Your task to perform on an android device: stop showing notifications on the lock screen Image 0: 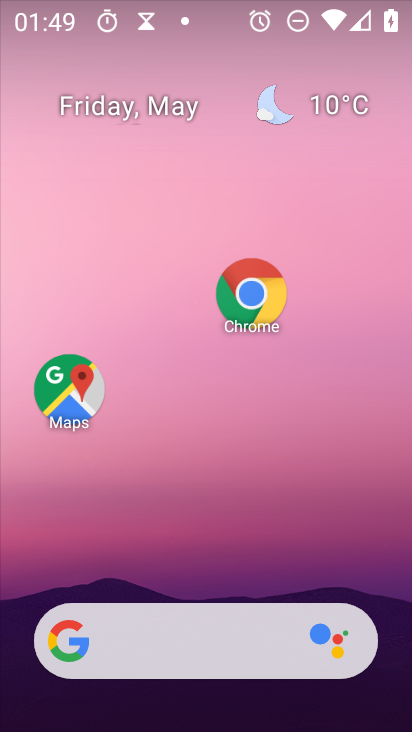
Step 0: press home button
Your task to perform on an android device: stop showing notifications on the lock screen Image 1: 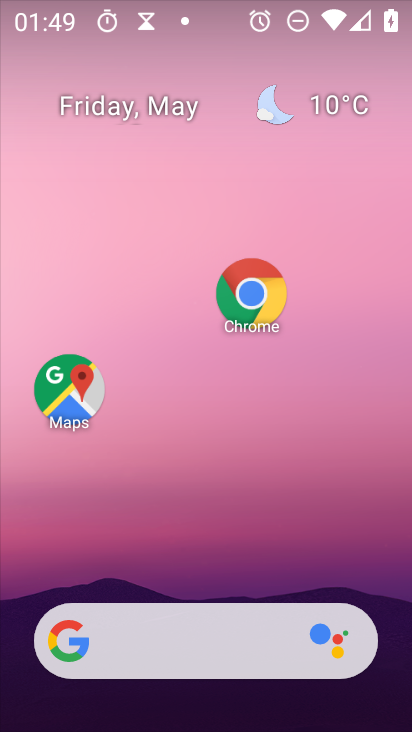
Step 1: drag from (176, 666) to (325, 78)
Your task to perform on an android device: stop showing notifications on the lock screen Image 2: 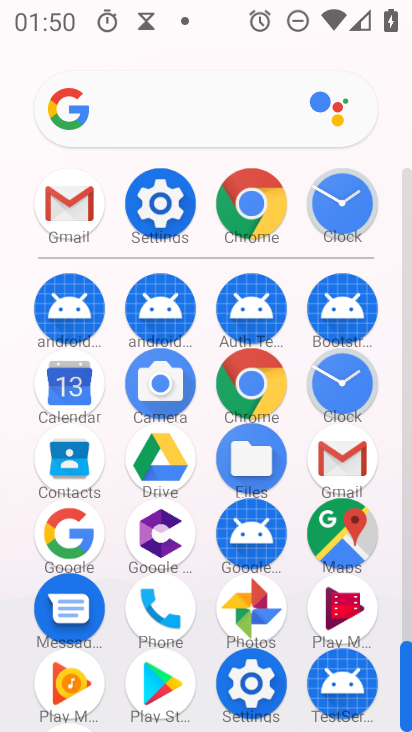
Step 2: click (167, 202)
Your task to perform on an android device: stop showing notifications on the lock screen Image 3: 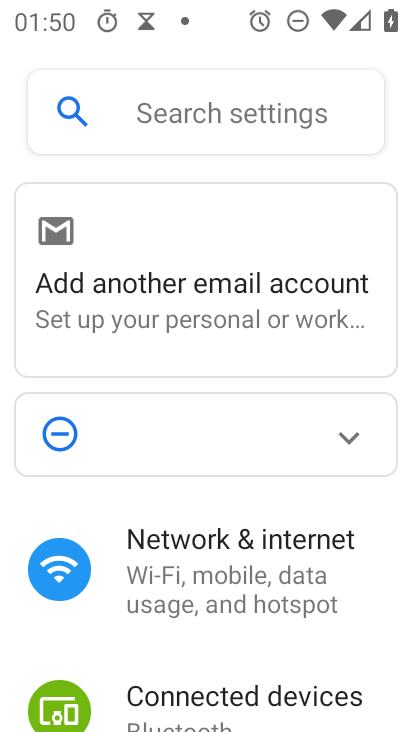
Step 3: drag from (230, 643) to (329, 238)
Your task to perform on an android device: stop showing notifications on the lock screen Image 4: 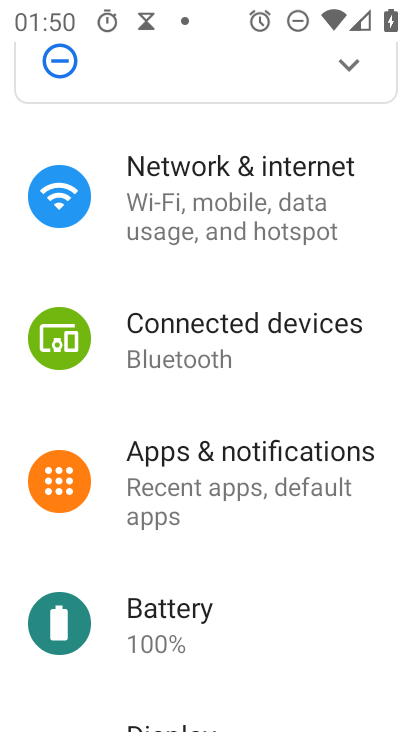
Step 4: click (277, 445)
Your task to perform on an android device: stop showing notifications on the lock screen Image 5: 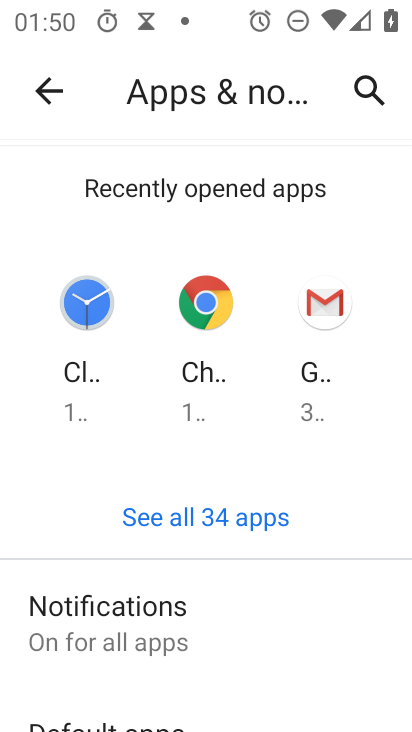
Step 5: click (144, 610)
Your task to perform on an android device: stop showing notifications on the lock screen Image 6: 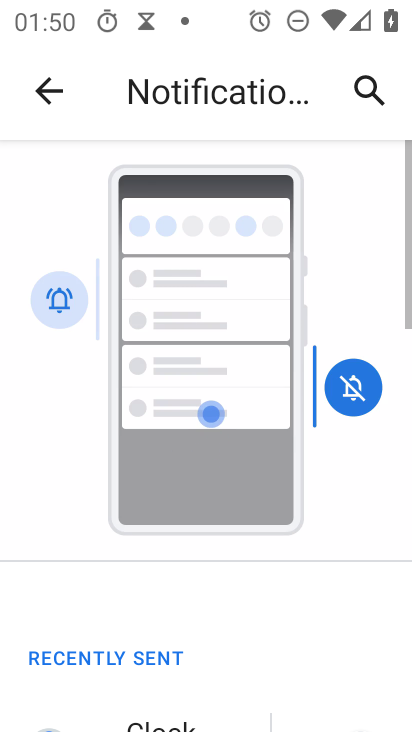
Step 6: drag from (226, 563) to (410, 87)
Your task to perform on an android device: stop showing notifications on the lock screen Image 7: 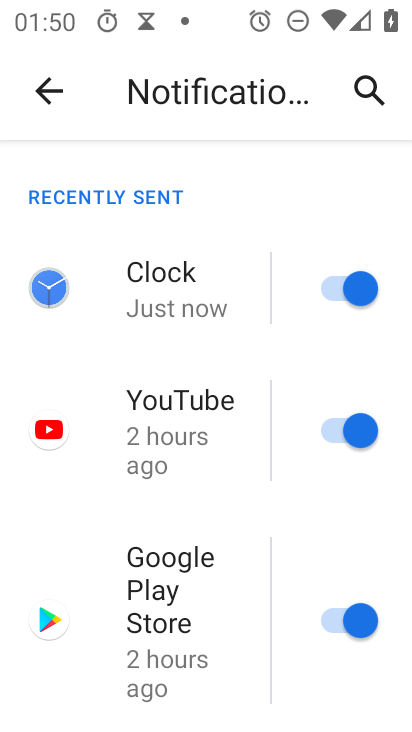
Step 7: drag from (225, 651) to (390, 182)
Your task to perform on an android device: stop showing notifications on the lock screen Image 8: 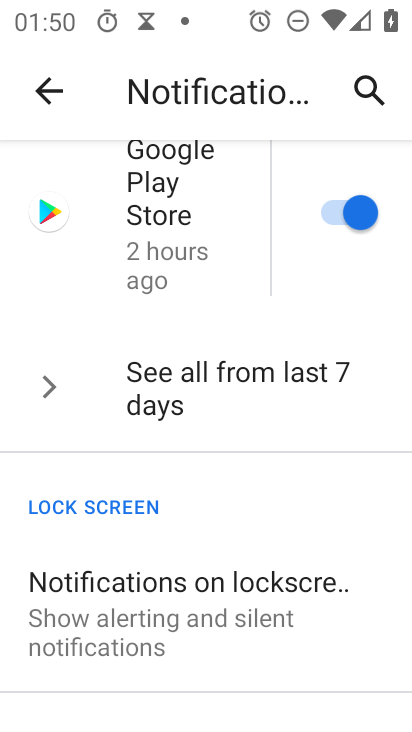
Step 8: click (261, 532)
Your task to perform on an android device: stop showing notifications on the lock screen Image 9: 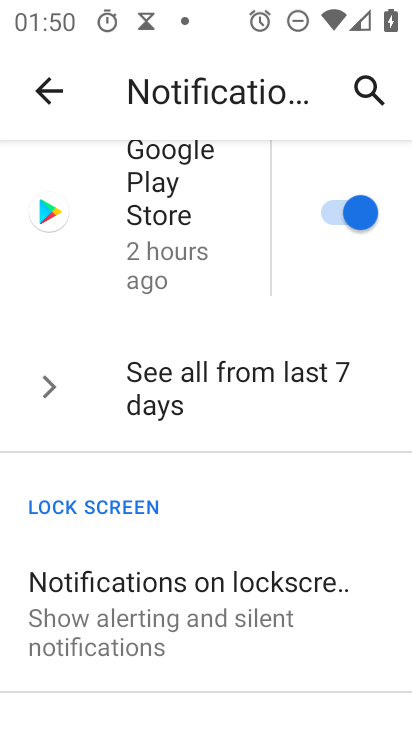
Step 9: click (256, 582)
Your task to perform on an android device: stop showing notifications on the lock screen Image 10: 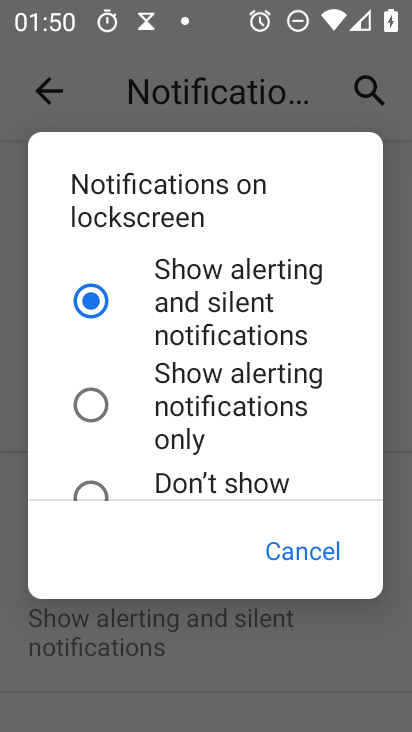
Step 10: drag from (113, 457) to (230, 241)
Your task to perform on an android device: stop showing notifications on the lock screen Image 11: 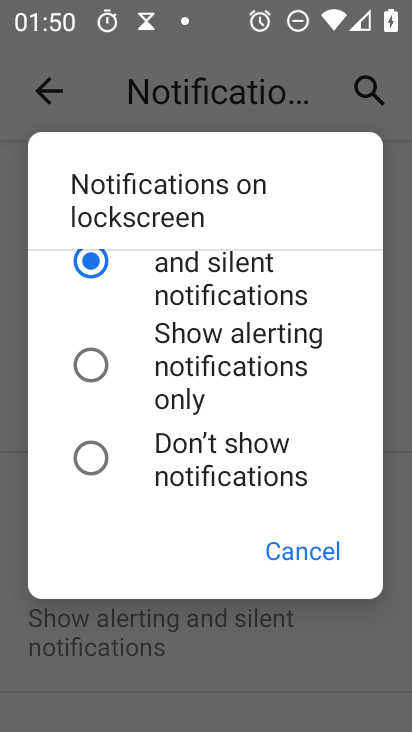
Step 11: click (92, 462)
Your task to perform on an android device: stop showing notifications on the lock screen Image 12: 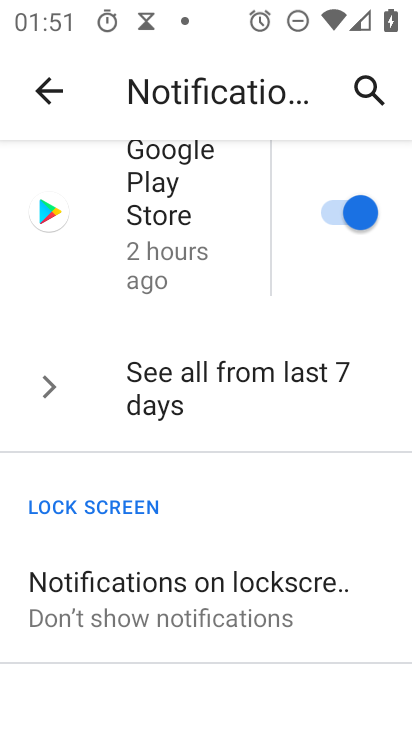
Step 12: task complete